Your task to perform on an android device: Open the Play Movies app and select the watchlist tab. Image 0: 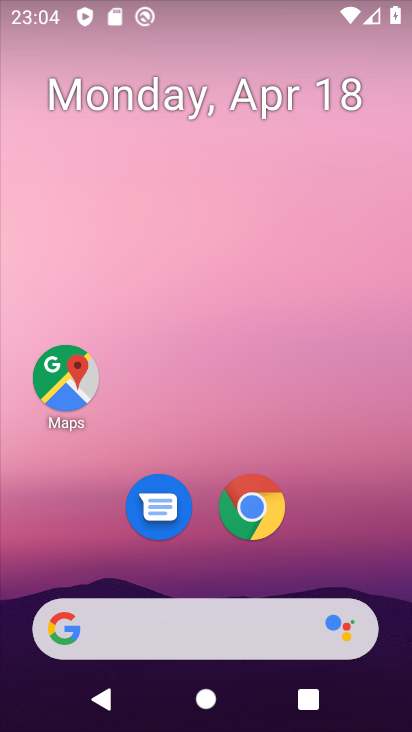
Step 0: drag from (340, 512) to (374, 90)
Your task to perform on an android device: Open the Play Movies app and select the watchlist tab. Image 1: 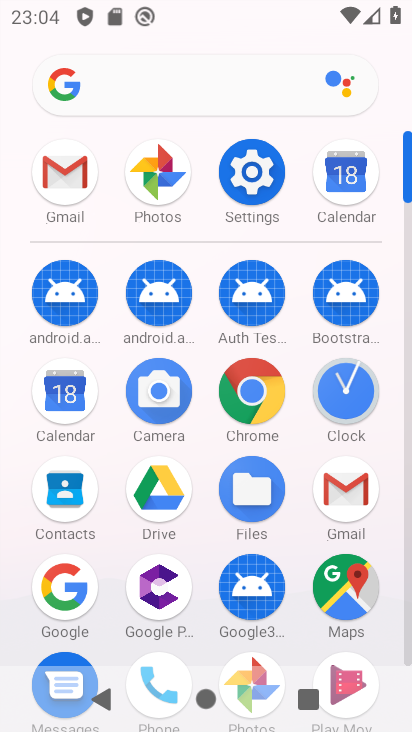
Step 1: drag from (309, 509) to (322, 249)
Your task to perform on an android device: Open the Play Movies app and select the watchlist tab. Image 2: 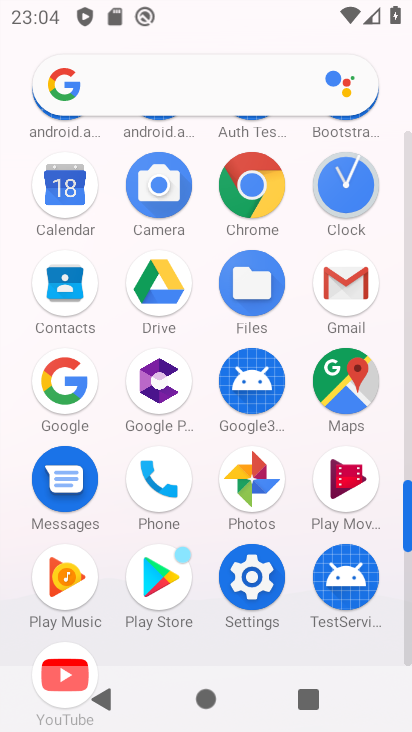
Step 2: click (353, 483)
Your task to perform on an android device: Open the Play Movies app and select the watchlist tab. Image 3: 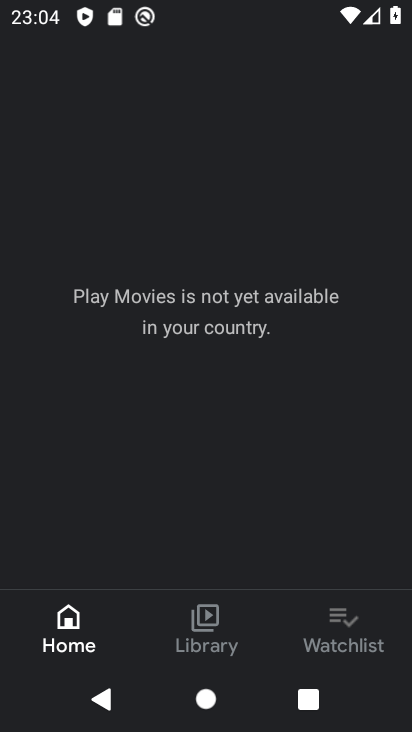
Step 3: click (335, 616)
Your task to perform on an android device: Open the Play Movies app and select the watchlist tab. Image 4: 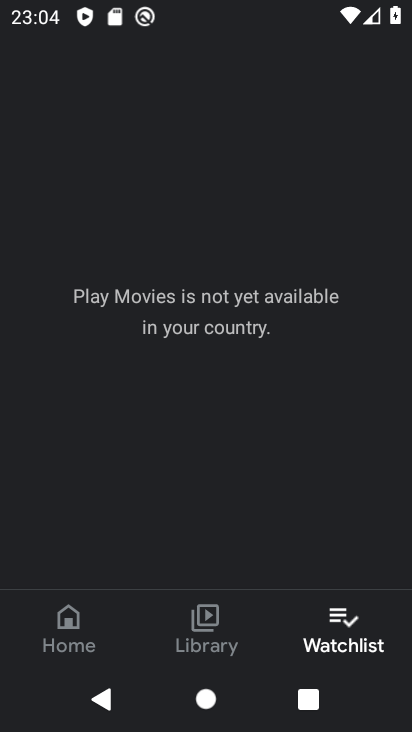
Step 4: task complete